Your task to perform on an android device: change keyboard looks Image 0: 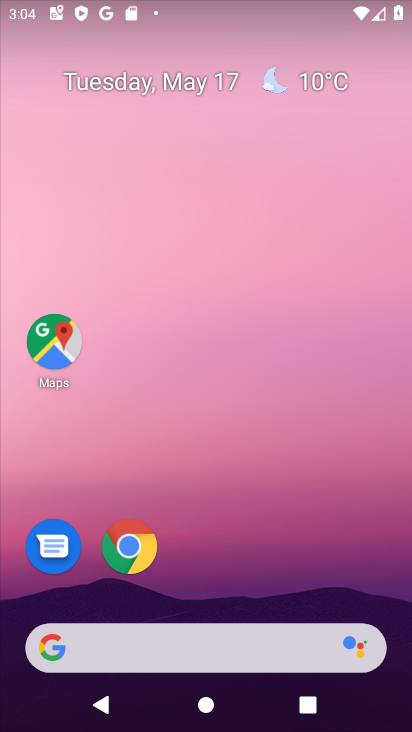
Step 0: drag from (218, 593) to (325, 116)
Your task to perform on an android device: change keyboard looks Image 1: 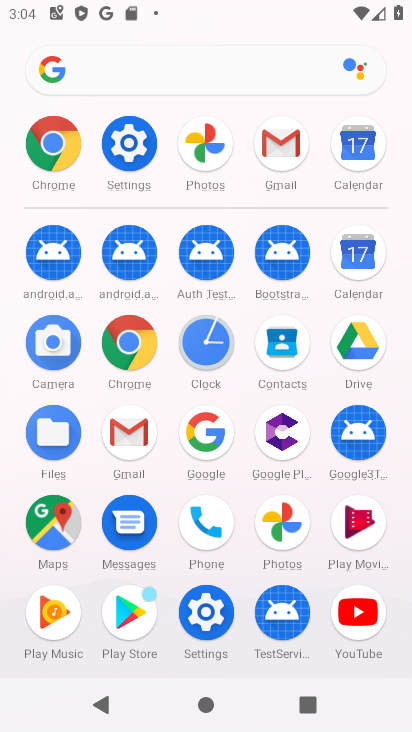
Step 1: click (199, 617)
Your task to perform on an android device: change keyboard looks Image 2: 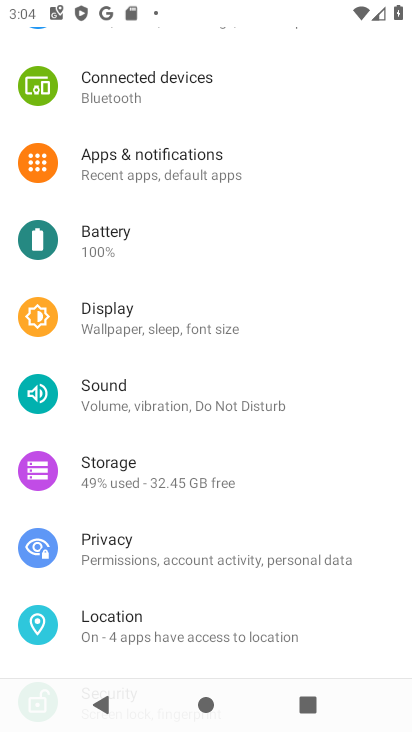
Step 2: drag from (145, 607) to (183, 388)
Your task to perform on an android device: change keyboard looks Image 3: 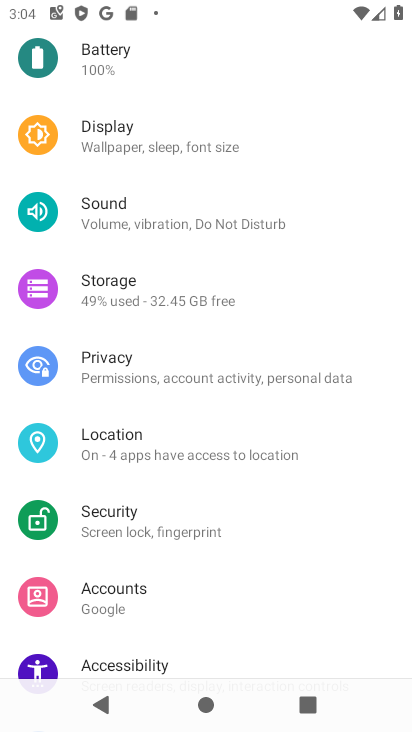
Step 3: drag from (165, 619) to (224, 253)
Your task to perform on an android device: change keyboard looks Image 4: 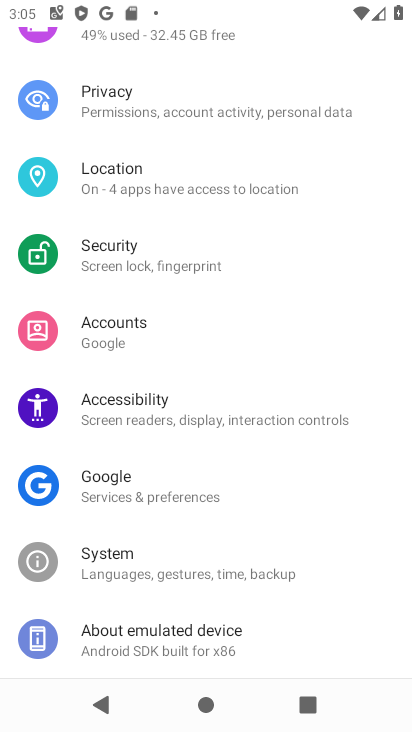
Step 4: drag from (199, 266) to (208, 230)
Your task to perform on an android device: change keyboard looks Image 5: 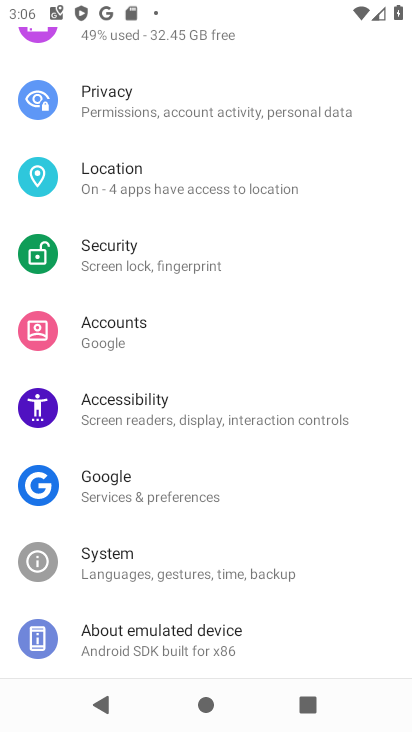
Step 5: click (149, 578)
Your task to perform on an android device: change keyboard looks Image 6: 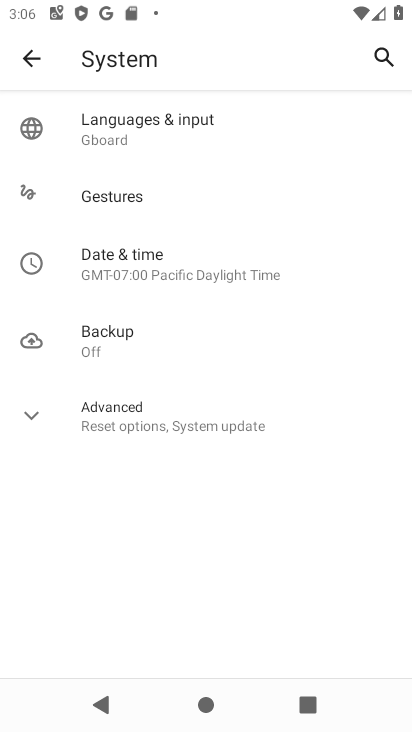
Step 6: click (135, 124)
Your task to perform on an android device: change keyboard looks Image 7: 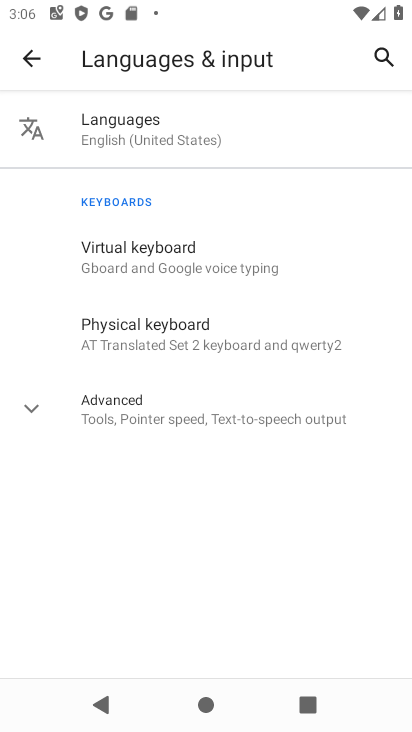
Step 7: click (146, 247)
Your task to perform on an android device: change keyboard looks Image 8: 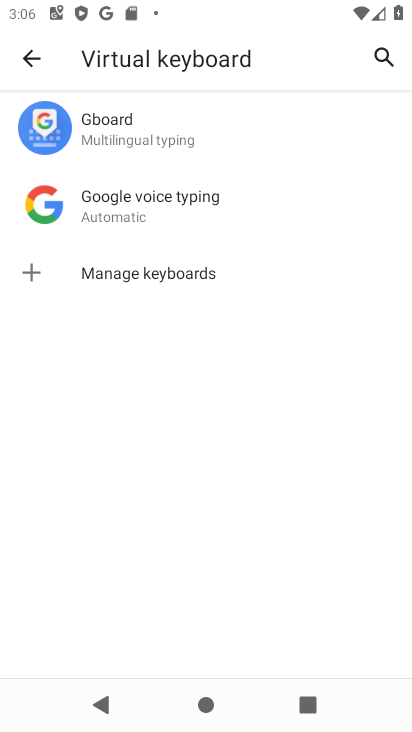
Step 8: click (141, 138)
Your task to perform on an android device: change keyboard looks Image 9: 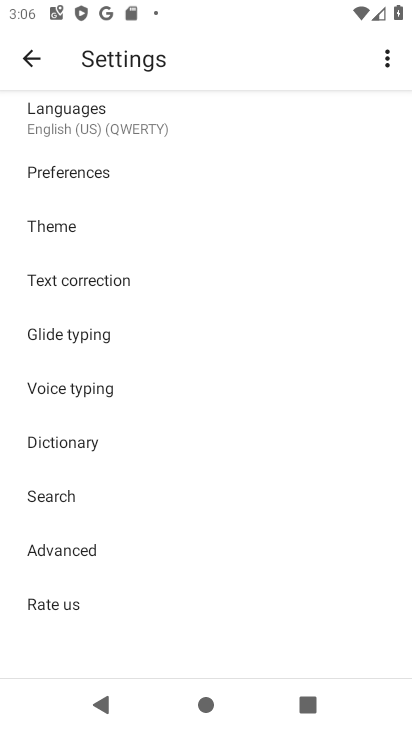
Step 9: click (85, 230)
Your task to perform on an android device: change keyboard looks Image 10: 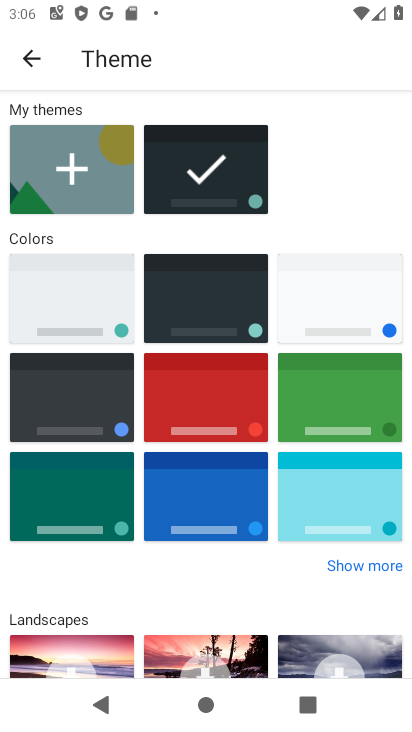
Step 10: click (204, 383)
Your task to perform on an android device: change keyboard looks Image 11: 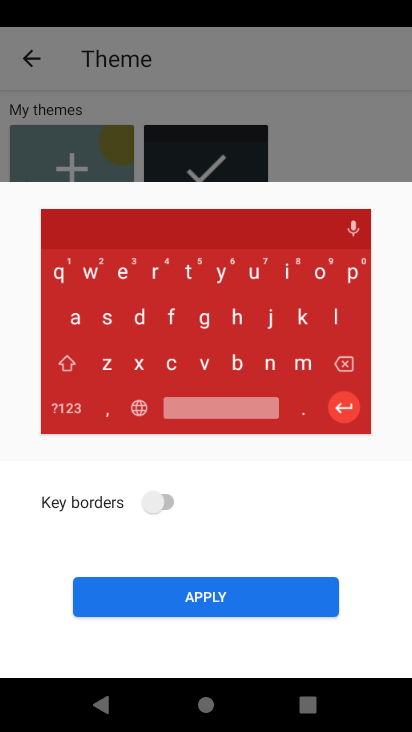
Step 11: click (189, 606)
Your task to perform on an android device: change keyboard looks Image 12: 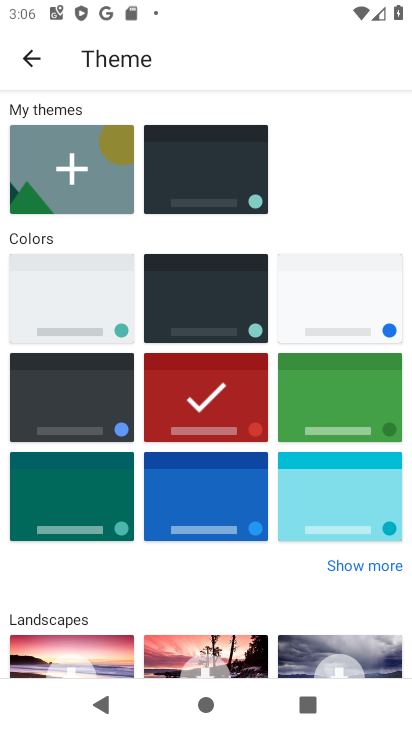
Step 12: task complete